Your task to perform on an android device: turn on improve location accuracy Image 0: 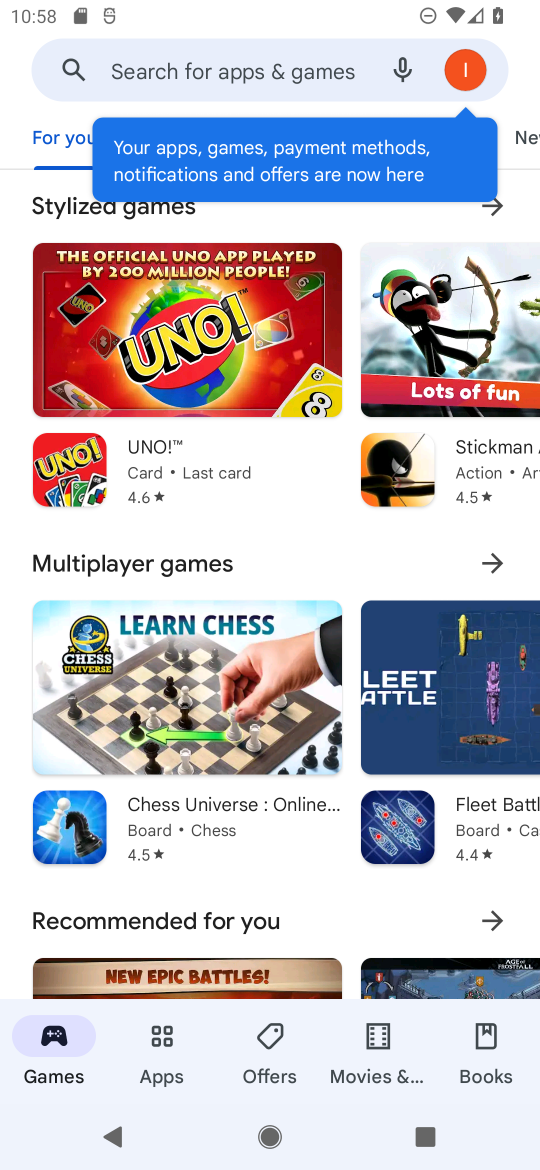
Step 0: press home button
Your task to perform on an android device: turn on improve location accuracy Image 1: 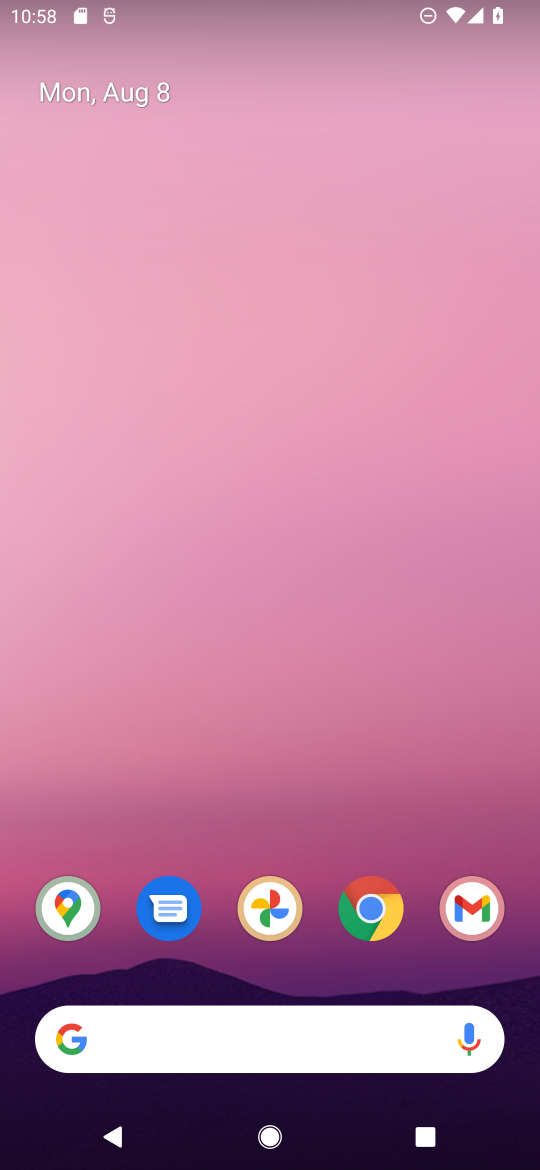
Step 1: drag from (256, 855) to (292, 17)
Your task to perform on an android device: turn on improve location accuracy Image 2: 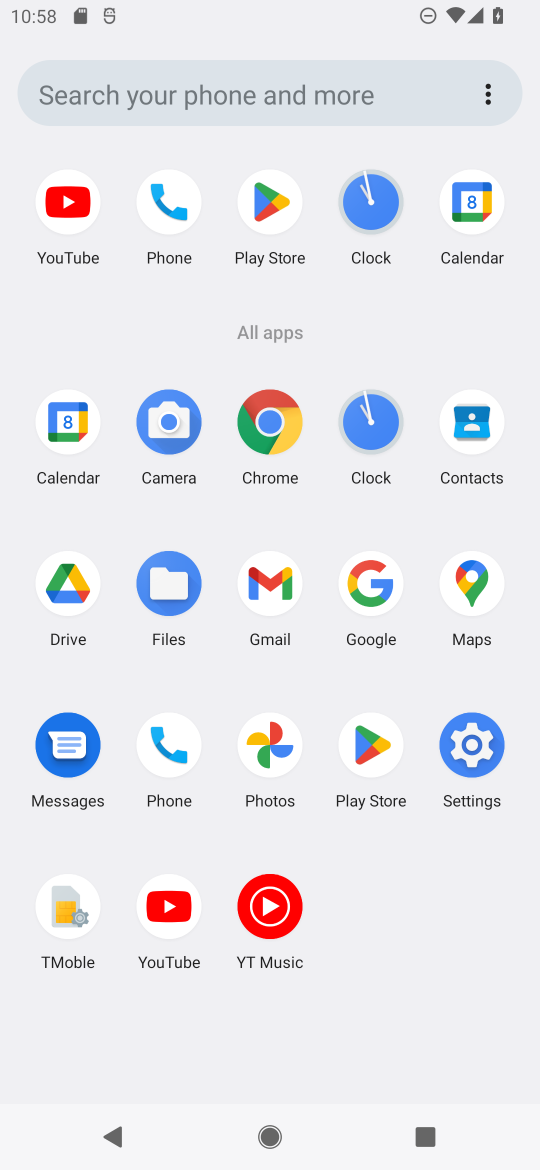
Step 2: click (463, 737)
Your task to perform on an android device: turn on improve location accuracy Image 3: 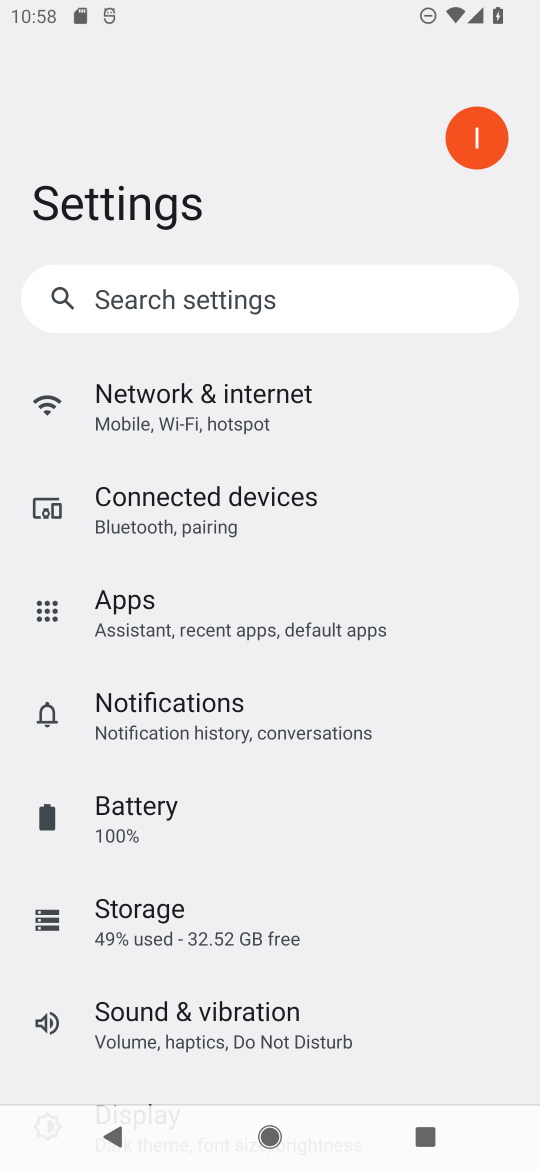
Step 3: drag from (274, 970) to (365, 253)
Your task to perform on an android device: turn on improve location accuracy Image 4: 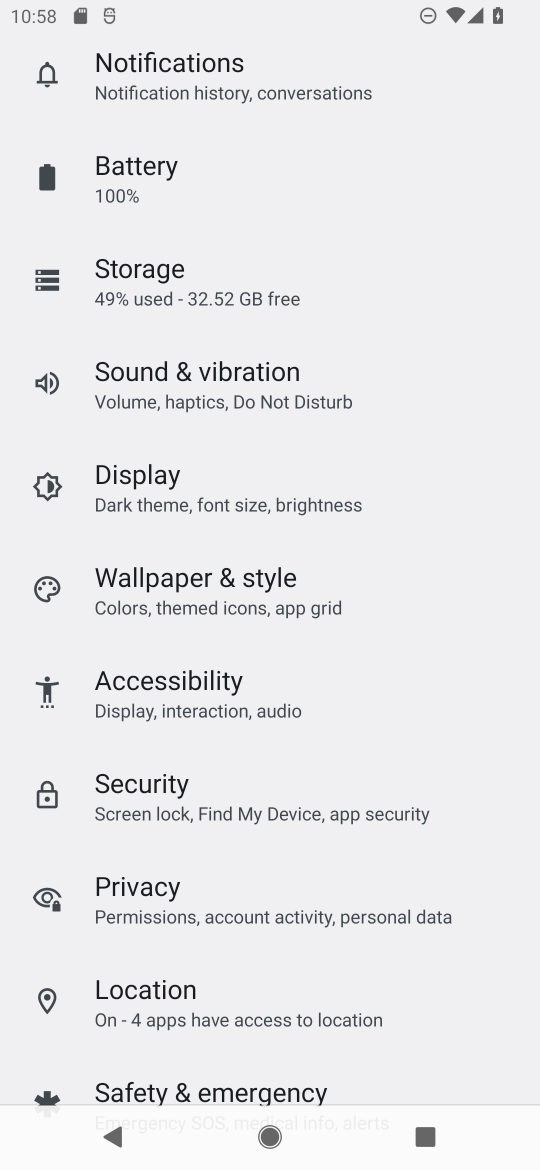
Step 4: click (229, 996)
Your task to perform on an android device: turn on improve location accuracy Image 5: 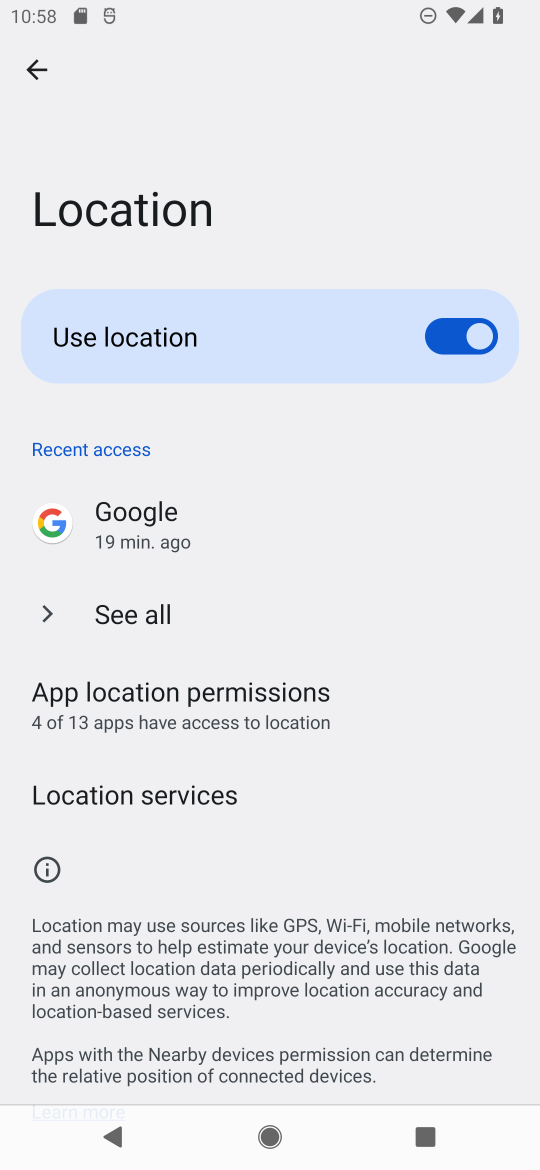
Step 5: click (137, 795)
Your task to perform on an android device: turn on improve location accuracy Image 6: 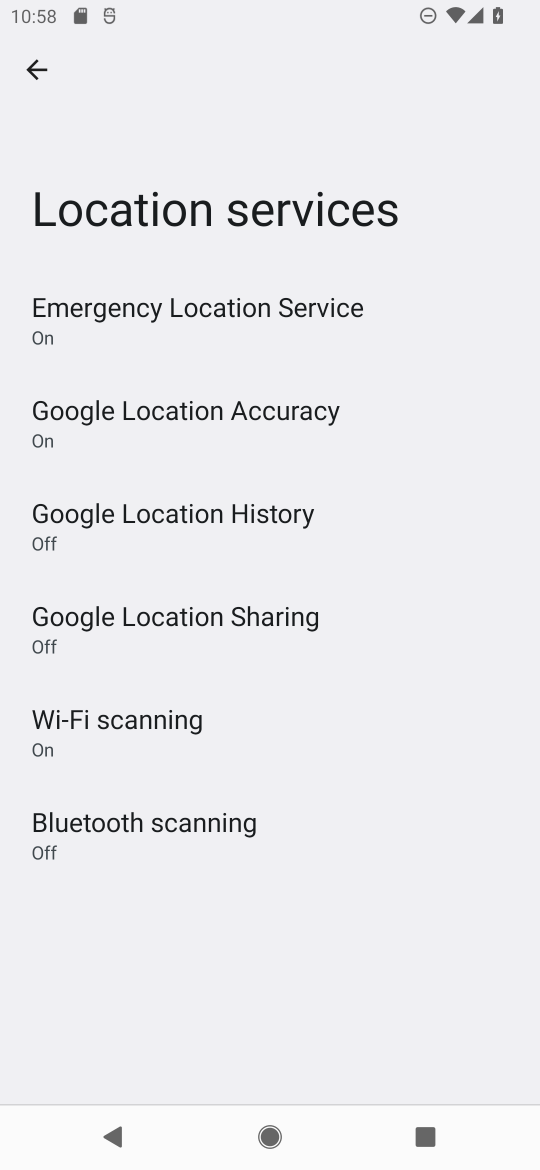
Step 6: click (331, 419)
Your task to perform on an android device: turn on improve location accuracy Image 7: 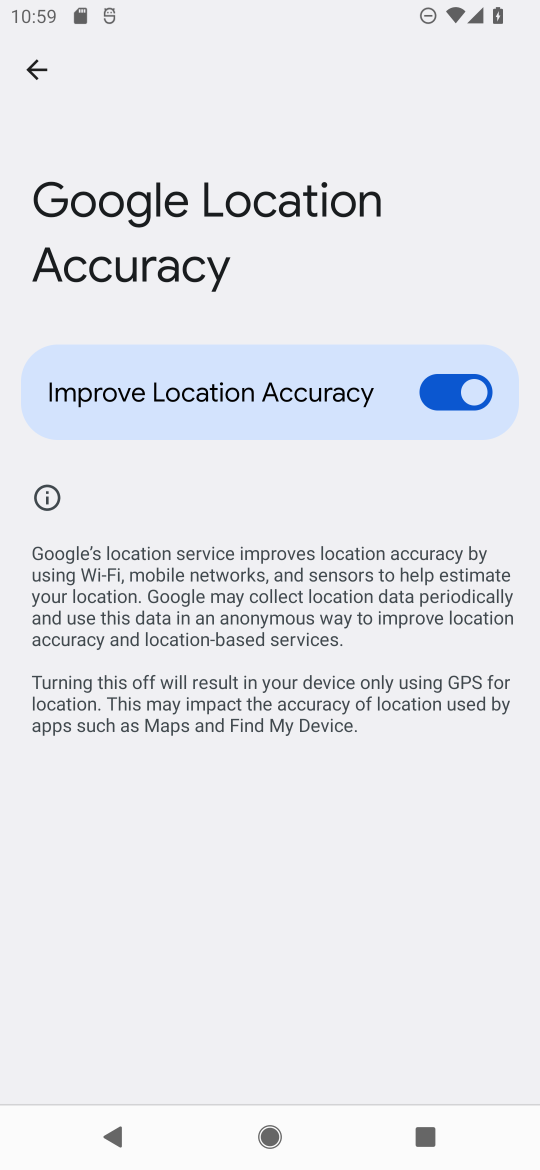
Step 7: task complete